Your task to perform on an android device: Go to CNN.com Image 0: 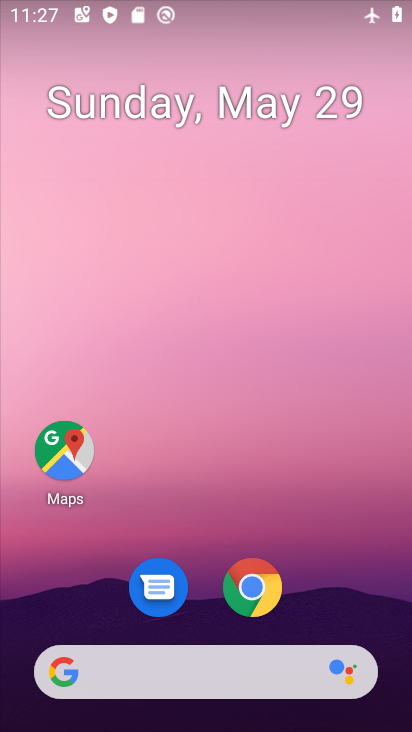
Step 0: click (254, 586)
Your task to perform on an android device: Go to CNN.com Image 1: 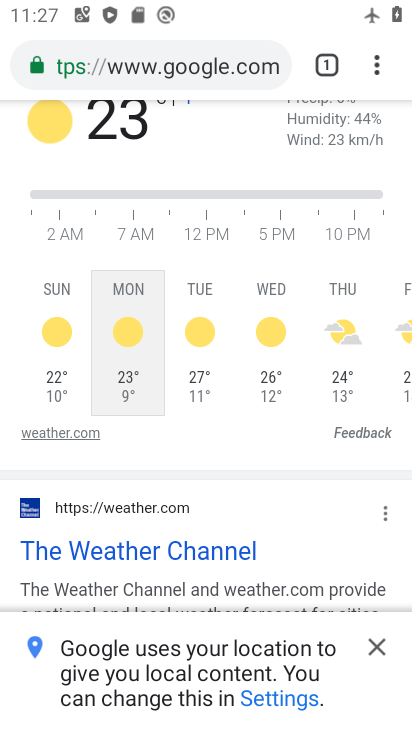
Step 1: click (210, 67)
Your task to perform on an android device: Go to CNN.com Image 2: 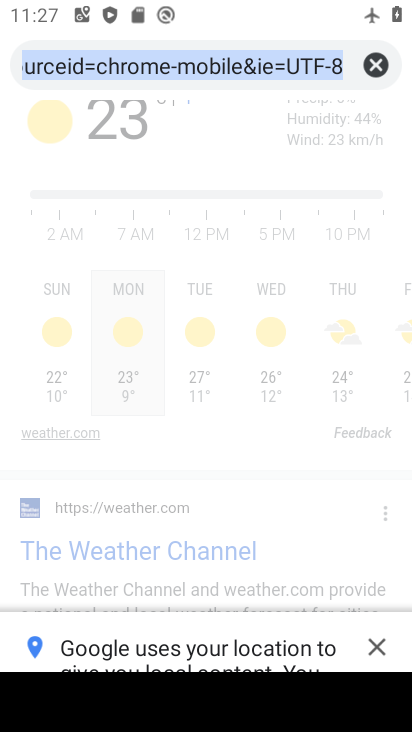
Step 2: type "cnn.com"
Your task to perform on an android device: Go to CNN.com Image 3: 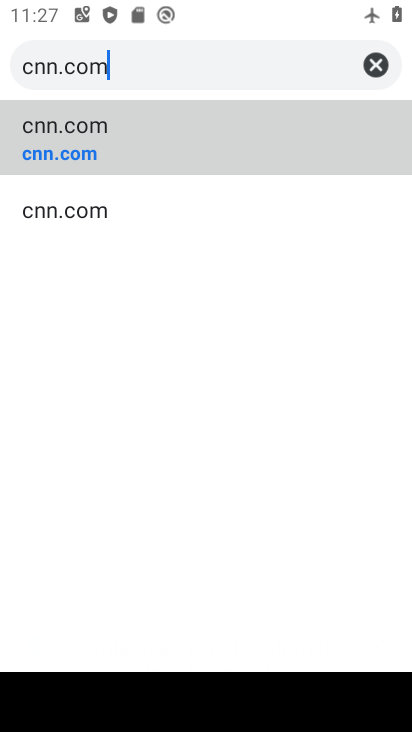
Step 3: click (48, 158)
Your task to perform on an android device: Go to CNN.com Image 4: 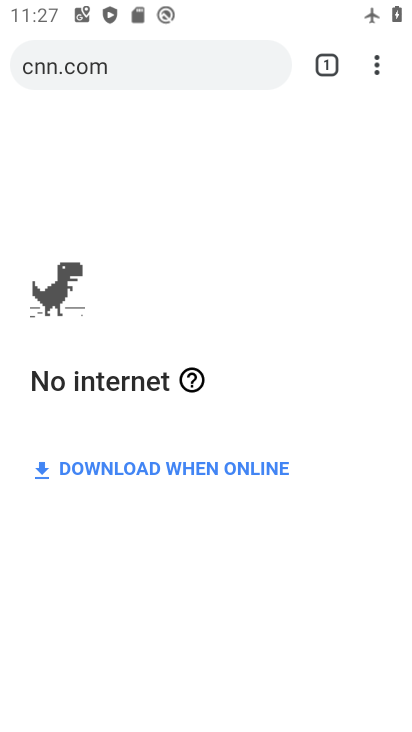
Step 4: task complete